Your task to perform on an android device: add a contact in the contacts app Image 0: 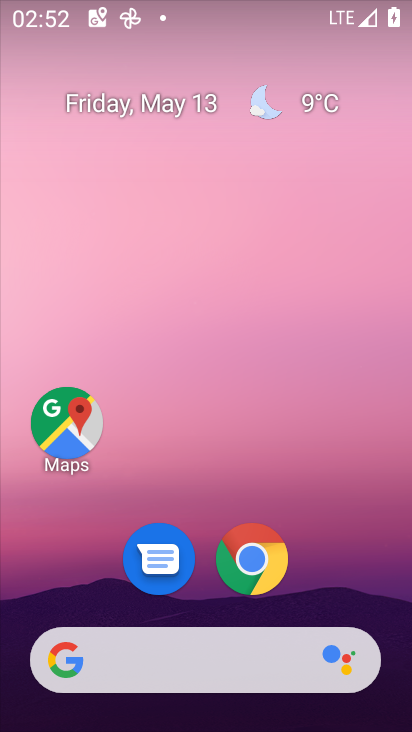
Step 0: press home button
Your task to perform on an android device: add a contact in the contacts app Image 1: 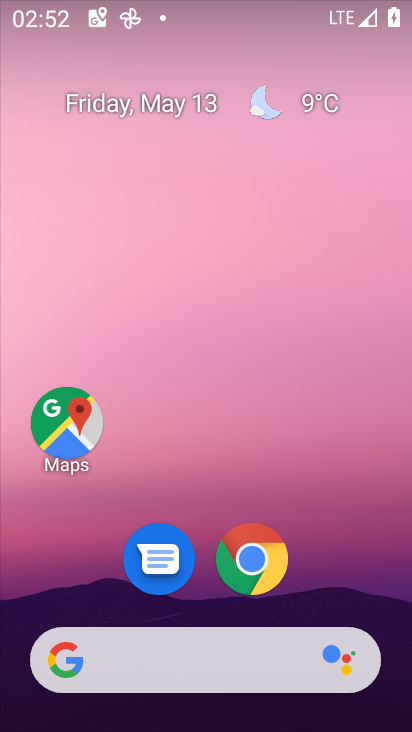
Step 1: drag from (393, 503) to (381, 294)
Your task to perform on an android device: add a contact in the contacts app Image 2: 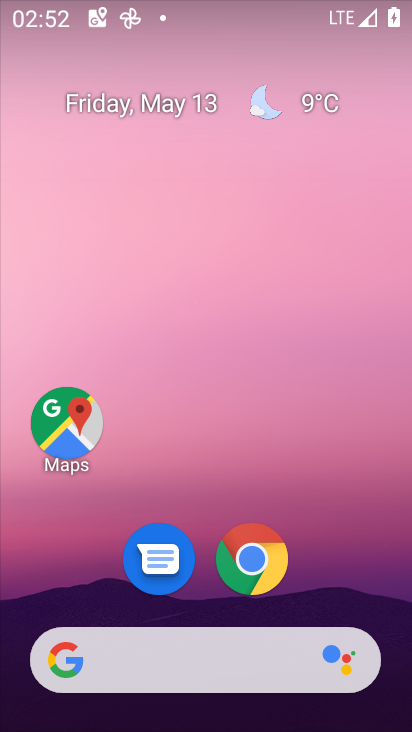
Step 2: drag from (400, 608) to (358, 112)
Your task to perform on an android device: add a contact in the contacts app Image 3: 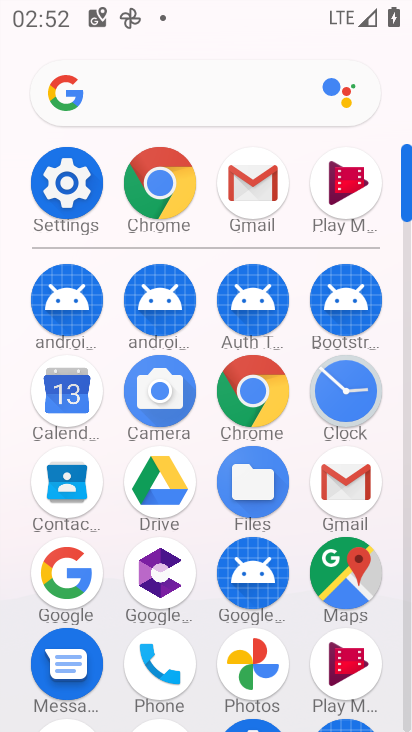
Step 3: click (63, 481)
Your task to perform on an android device: add a contact in the contacts app Image 4: 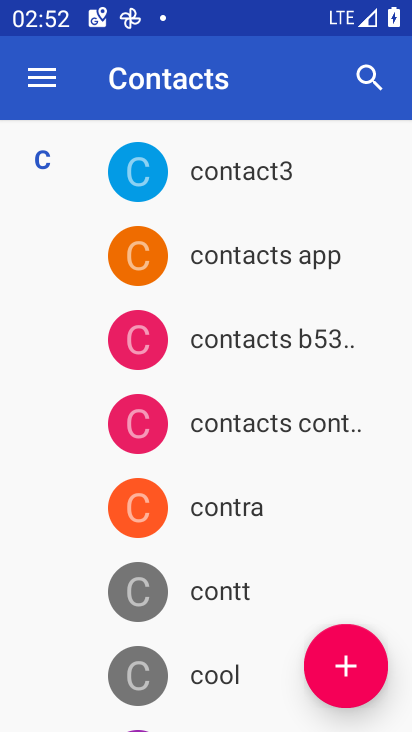
Step 4: click (358, 660)
Your task to perform on an android device: add a contact in the contacts app Image 5: 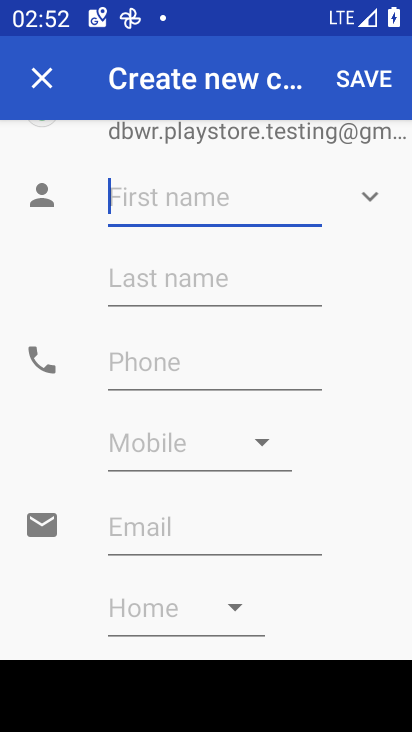
Step 5: type "werghmjhg"
Your task to perform on an android device: add a contact in the contacts app Image 6: 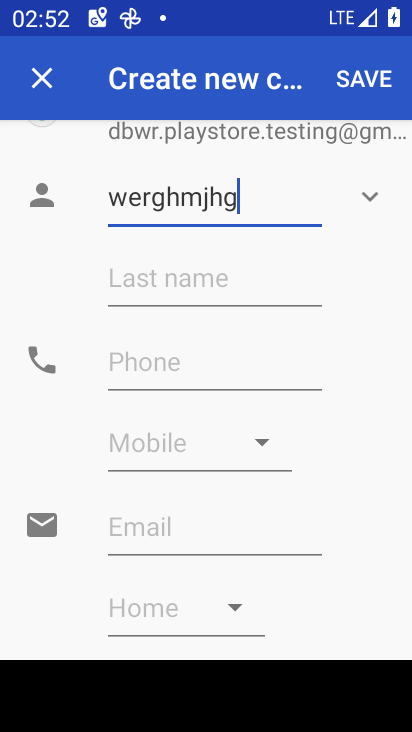
Step 6: click (196, 280)
Your task to perform on an android device: add a contact in the contacts app Image 7: 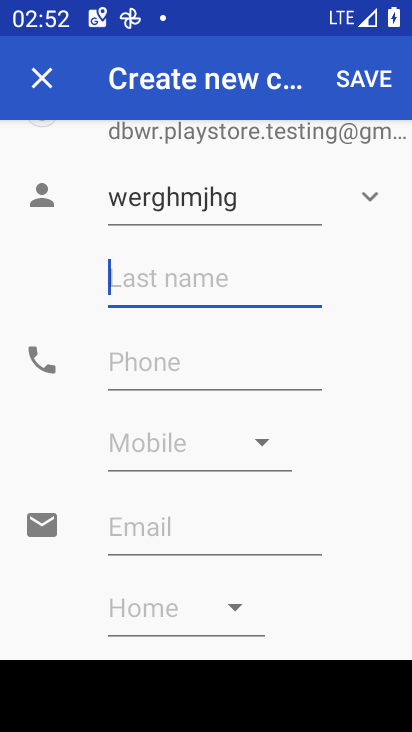
Step 7: type "sdcvrthj,uk"
Your task to perform on an android device: add a contact in the contacts app Image 8: 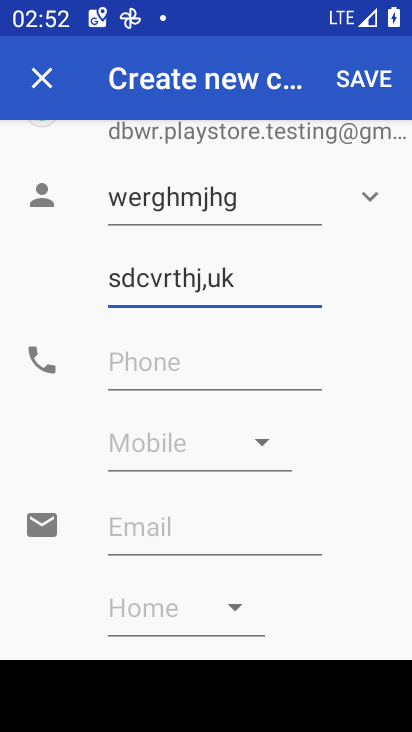
Step 8: click (165, 365)
Your task to perform on an android device: add a contact in the contacts app Image 9: 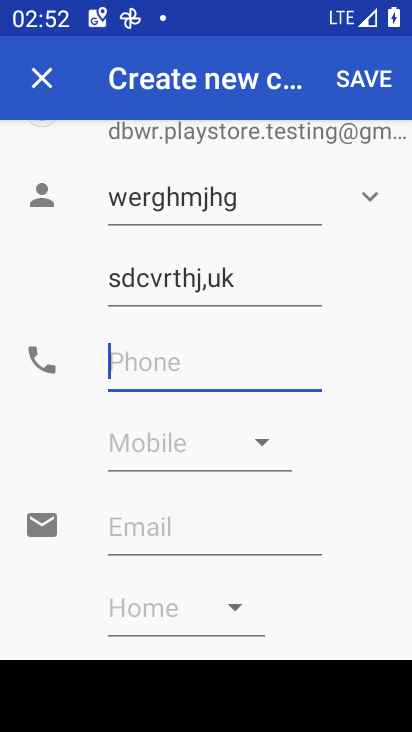
Step 9: type "23456789"
Your task to perform on an android device: add a contact in the contacts app Image 10: 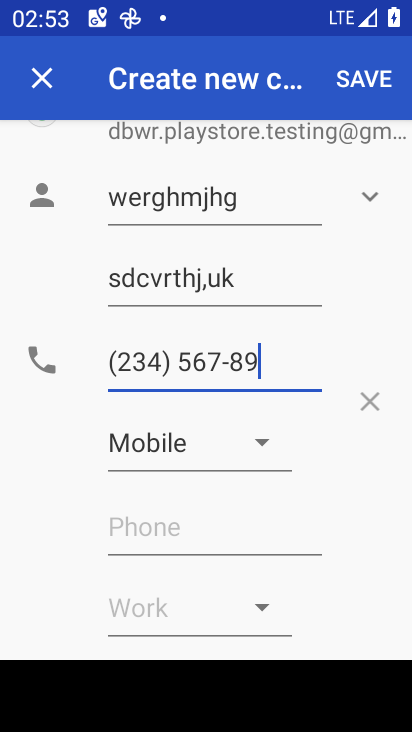
Step 10: click (367, 84)
Your task to perform on an android device: add a contact in the contacts app Image 11: 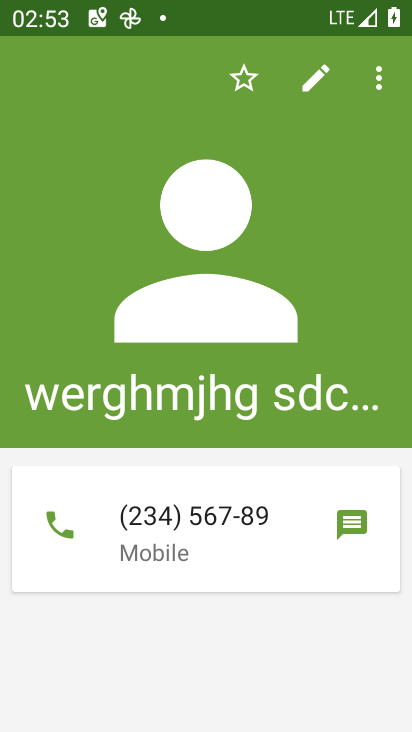
Step 11: task complete